Your task to perform on an android device: open app "Google Sheets" Image 0: 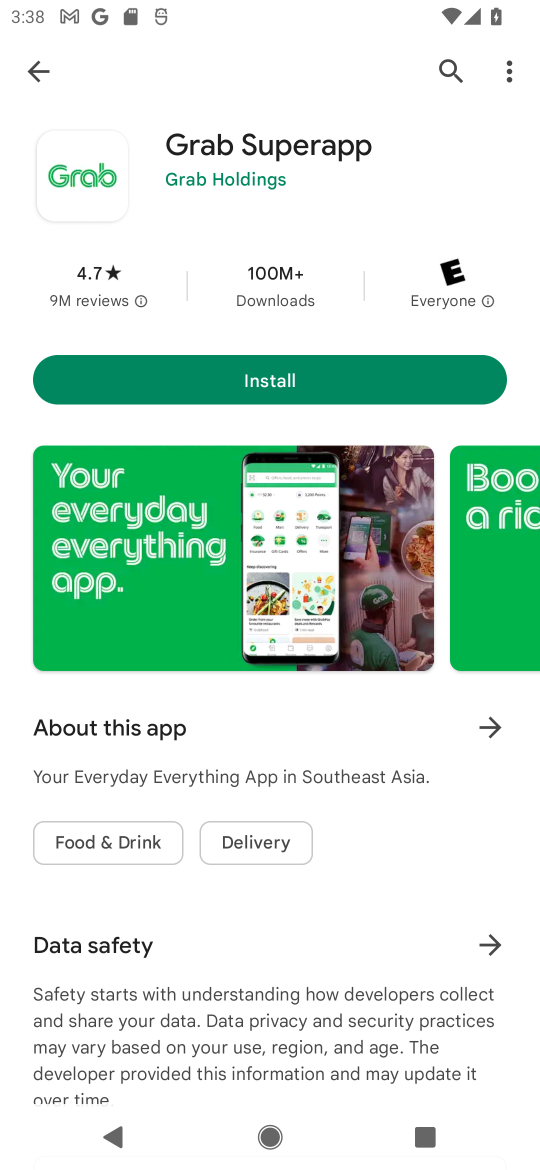
Step 0: drag from (260, 974) to (315, 285)
Your task to perform on an android device: open app "Google Sheets" Image 1: 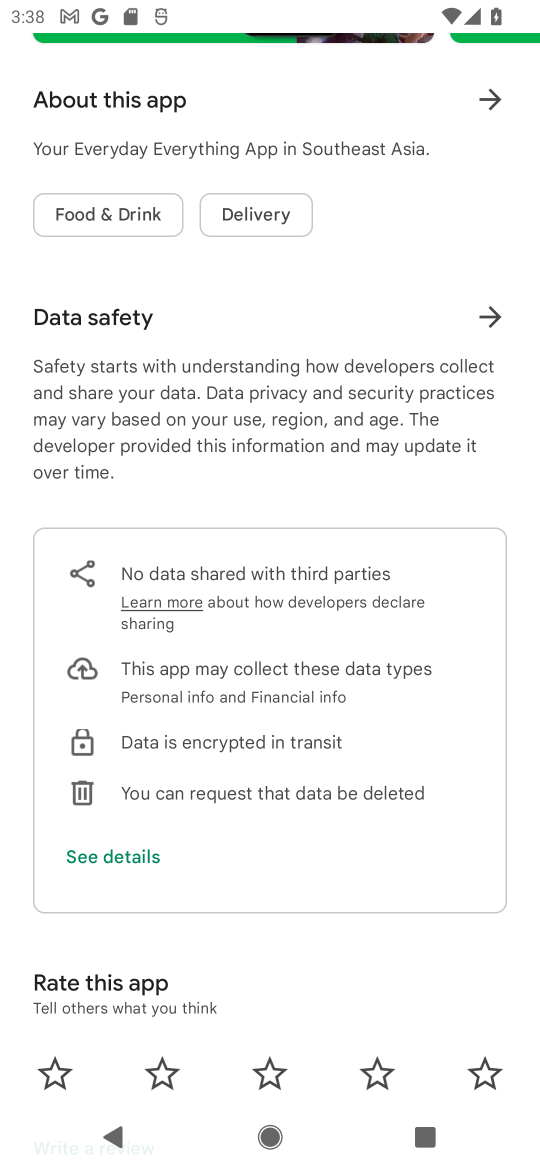
Step 1: drag from (264, 210) to (201, 1101)
Your task to perform on an android device: open app "Google Sheets" Image 2: 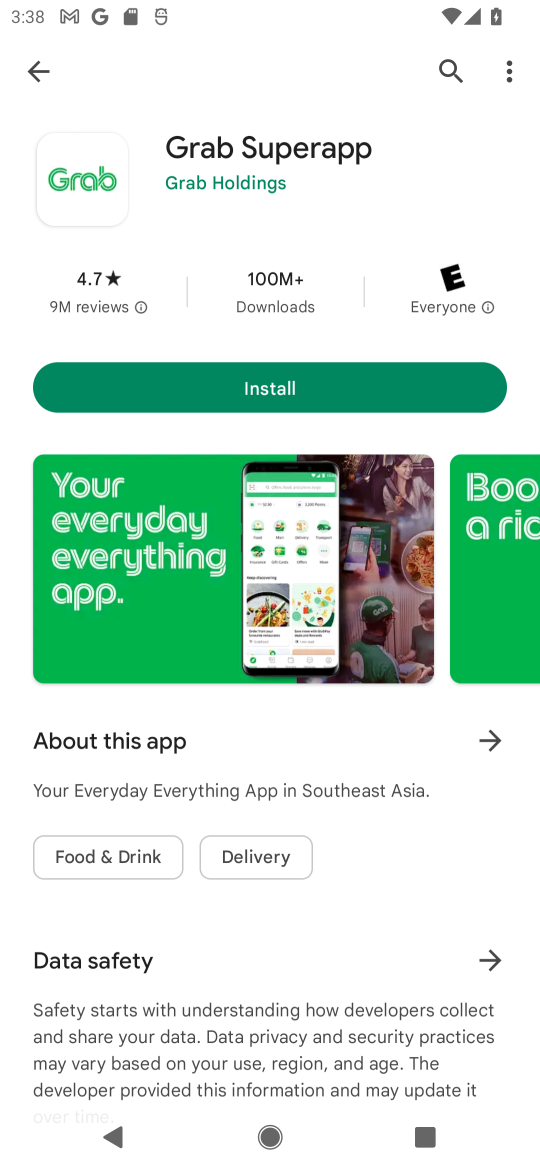
Step 2: drag from (324, 235) to (382, 874)
Your task to perform on an android device: open app "Google Sheets" Image 3: 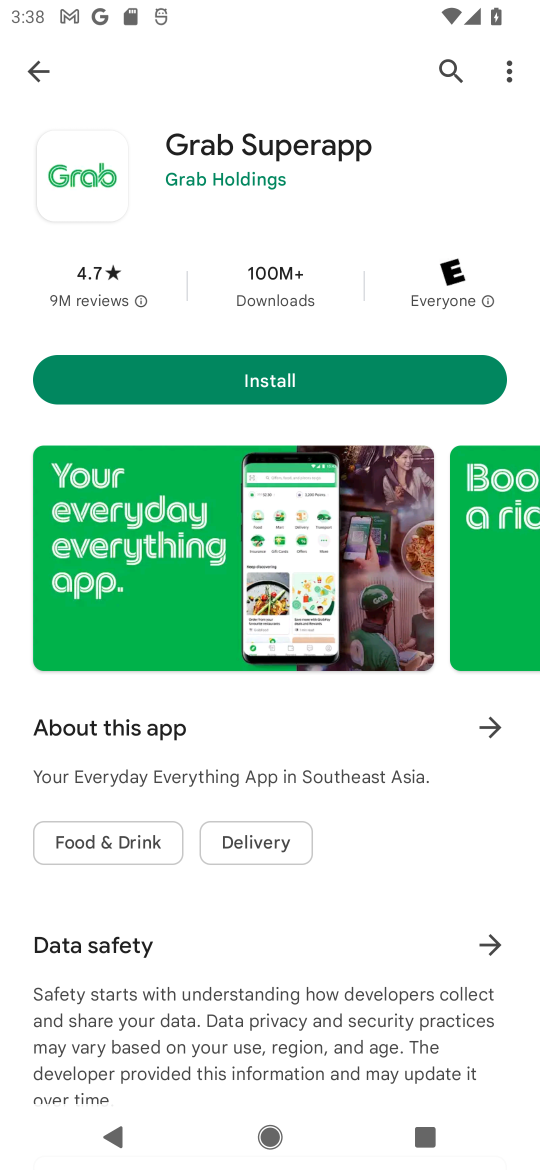
Step 3: click (450, 66)
Your task to perform on an android device: open app "Google Sheets" Image 4: 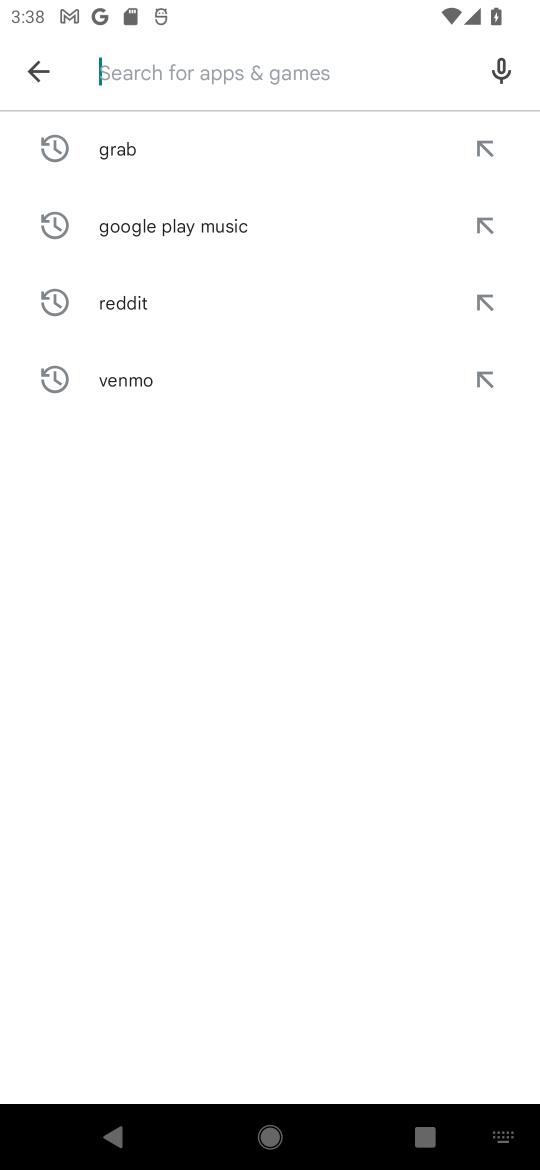
Step 4: type "Google Sheets"
Your task to perform on an android device: open app "Google Sheets" Image 5: 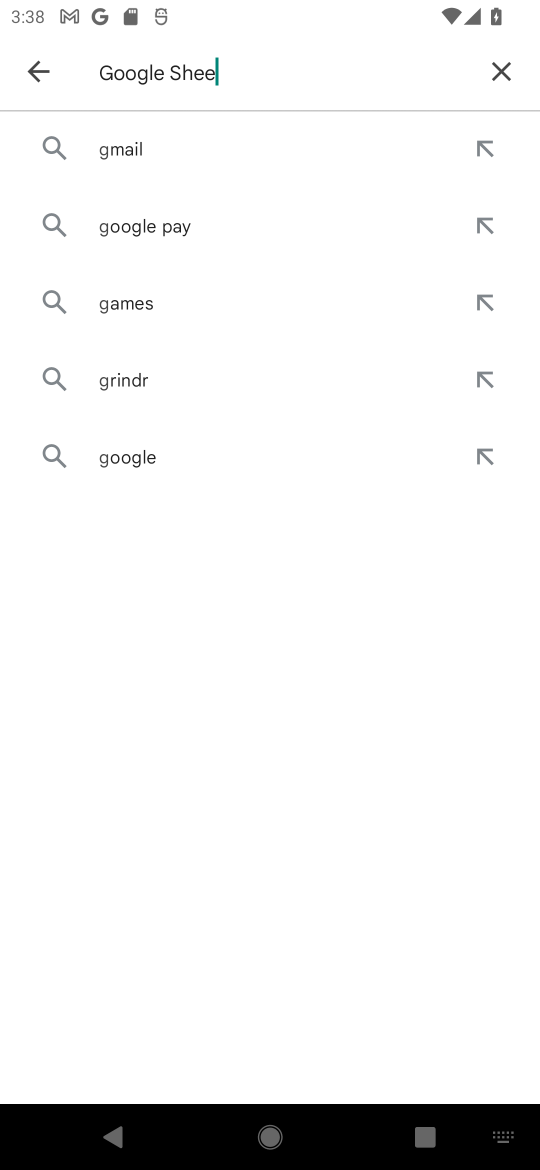
Step 5: type ""
Your task to perform on an android device: open app "Google Sheets" Image 6: 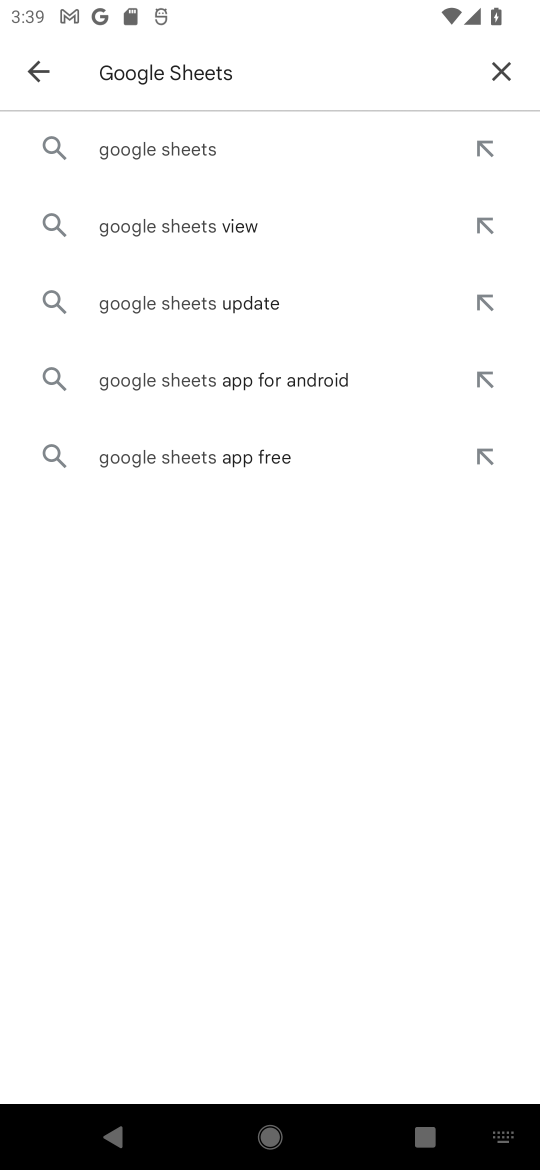
Step 6: click (200, 156)
Your task to perform on an android device: open app "Google Sheets" Image 7: 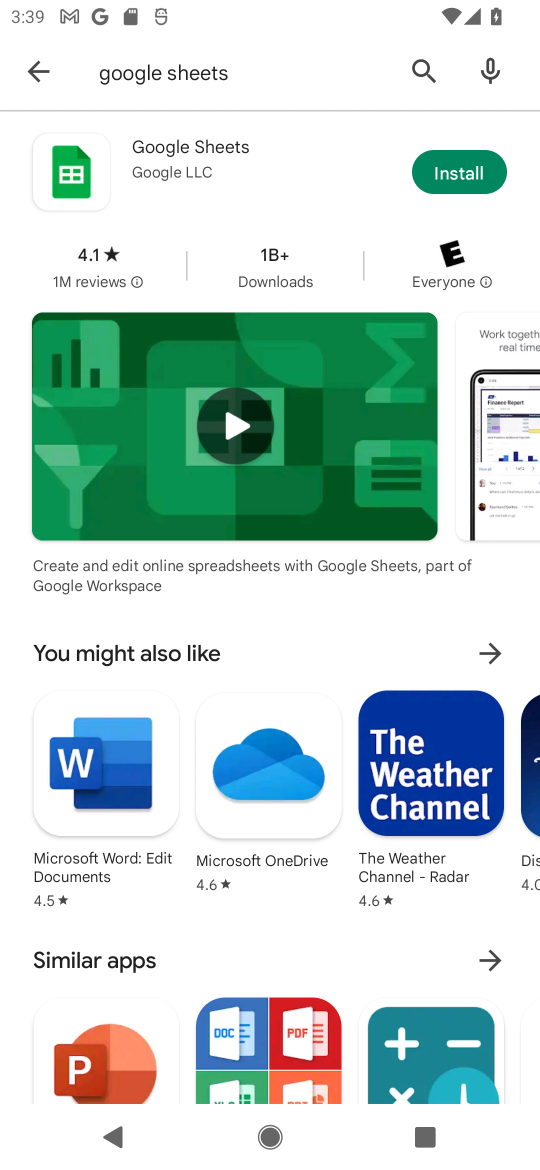
Step 7: click (188, 156)
Your task to perform on an android device: open app "Google Sheets" Image 8: 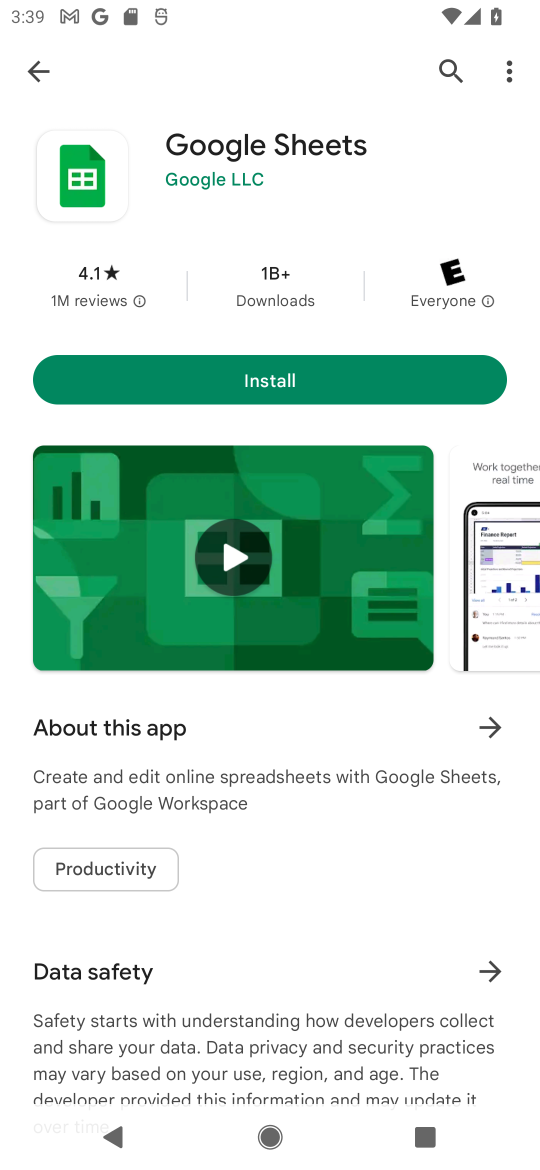
Step 8: task complete